Your task to perform on an android device: Go to location settings Image 0: 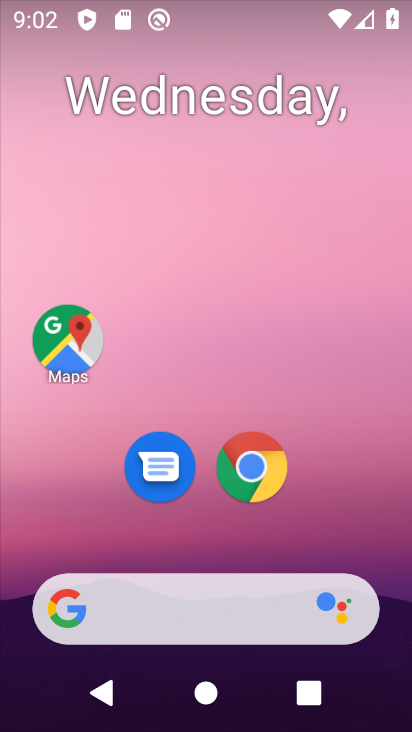
Step 0: drag from (301, 625) to (180, 86)
Your task to perform on an android device: Go to location settings Image 1: 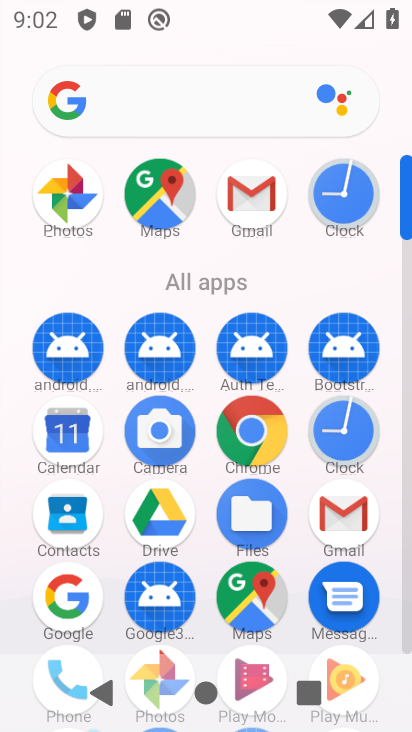
Step 1: drag from (220, 556) to (92, 24)
Your task to perform on an android device: Go to location settings Image 2: 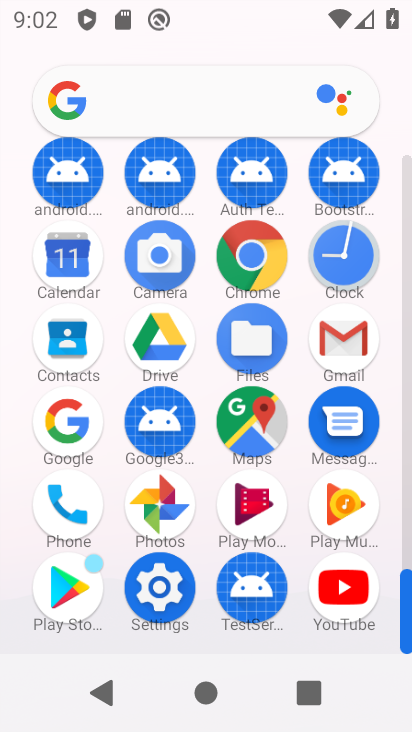
Step 2: drag from (257, 282) to (216, 2)
Your task to perform on an android device: Go to location settings Image 3: 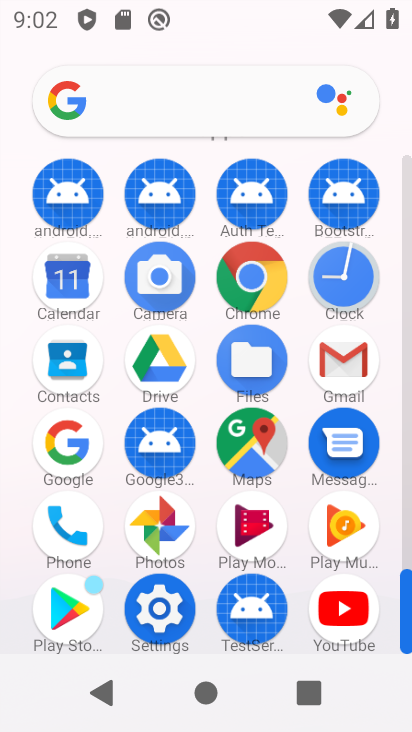
Step 3: click (152, 601)
Your task to perform on an android device: Go to location settings Image 4: 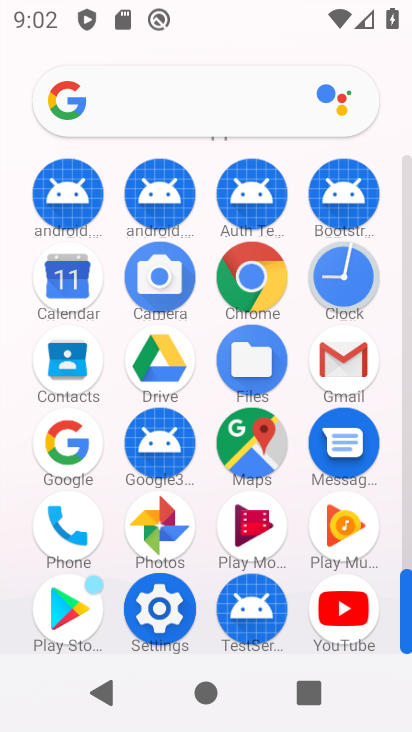
Step 4: click (152, 601)
Your task to perform on an android device: Go to location settings Image 5: 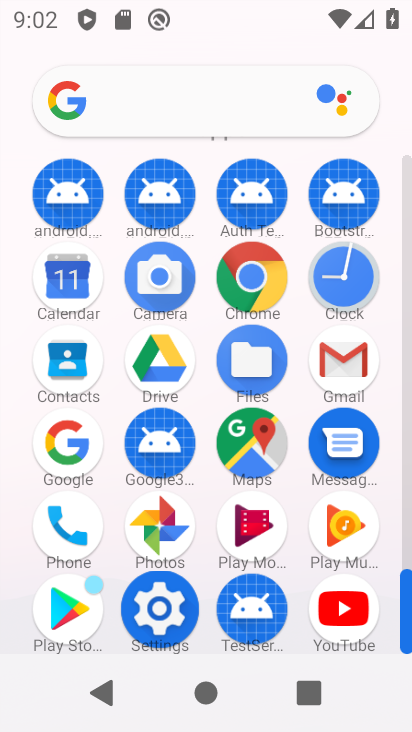
Step 5: click (151, 599)
Your task to perform on an android device: Go to location settings Image 6: 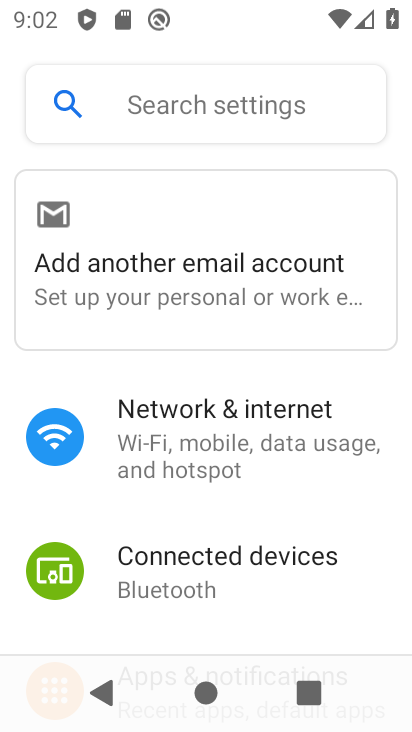
Step 6: drag from (218, 416) to (168, 181)
Your task to perform on an android device: Go to location settings Image 7: 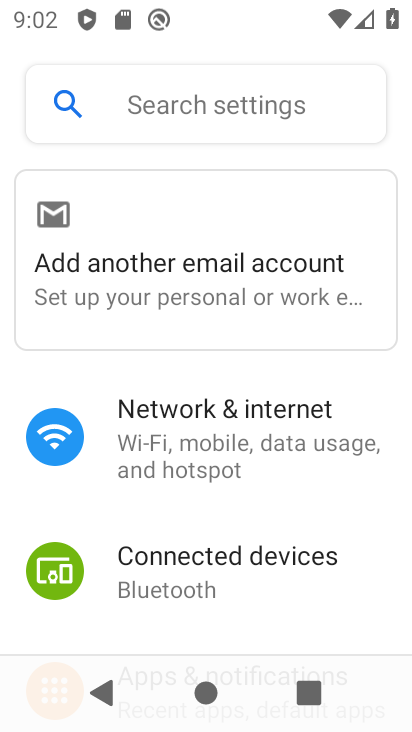
Step 7: drag from (250, 573) to (144, 3)
Your task to perform on an android device: Go to location settings Image 8: 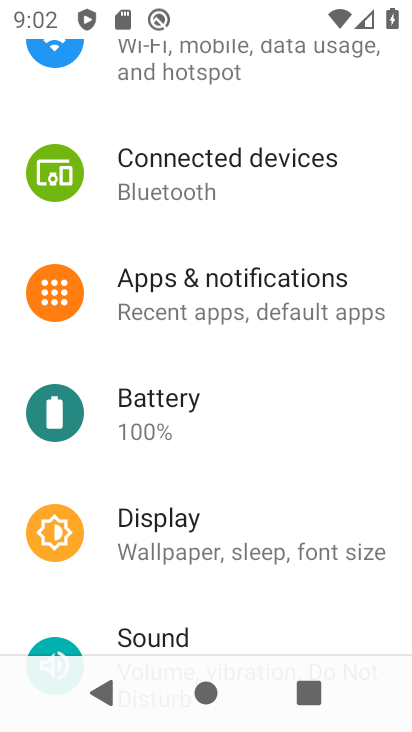
Step 8: drag from (230, 433) to (194, 193)
Your task to perform on an android device: Go to location settings Image 9: 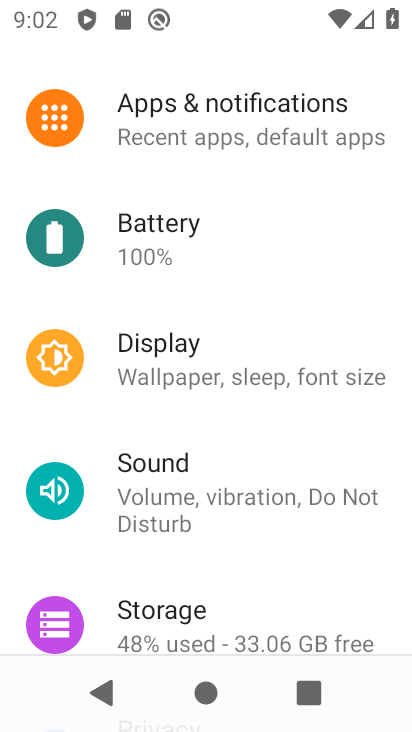
Step 9: drag from (246, 571) to (235, 151)
Your task to perform on an android device: Go to location settings Image 10: 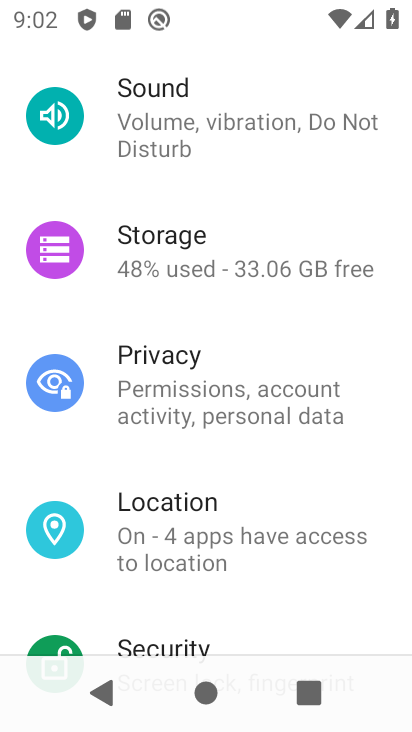
Step 10: drag from (262, 454) to (264, 37)
Your task to perform on an android device: Go to location settings Image 11: 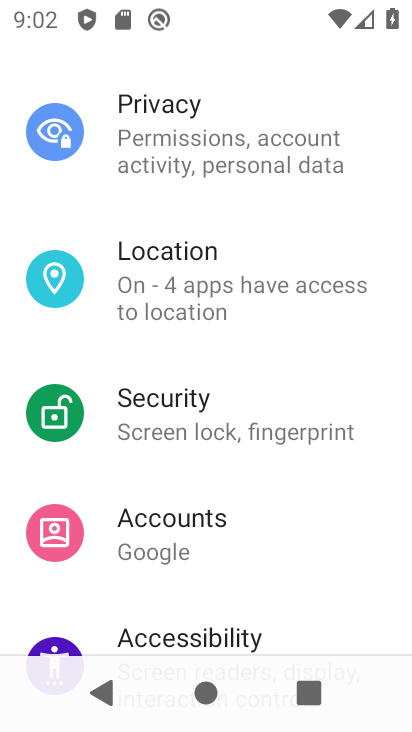
Step 11: click (179, 279)
Your task to perform on an android device: Go to location settings Image 12: 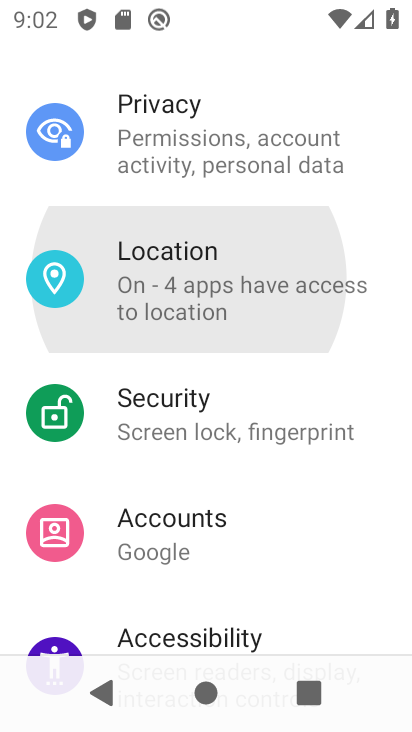
Step 12: click (150, 261)
Your task to perform on an android device: Go to location settings Image 13: 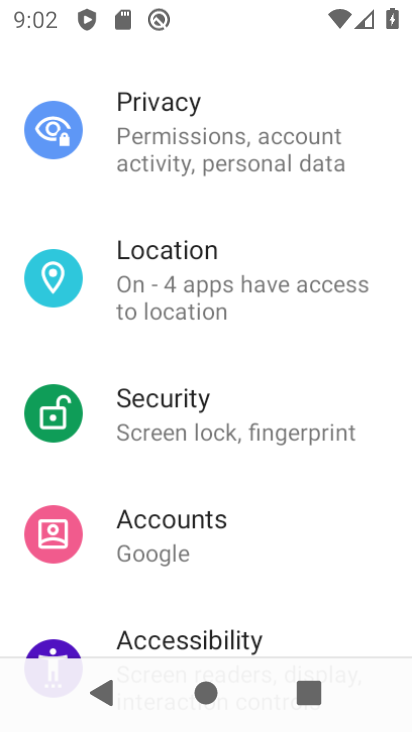
Step 13: click (171, 276)
Your task to perform on an android device: Go to location settings Image 14: 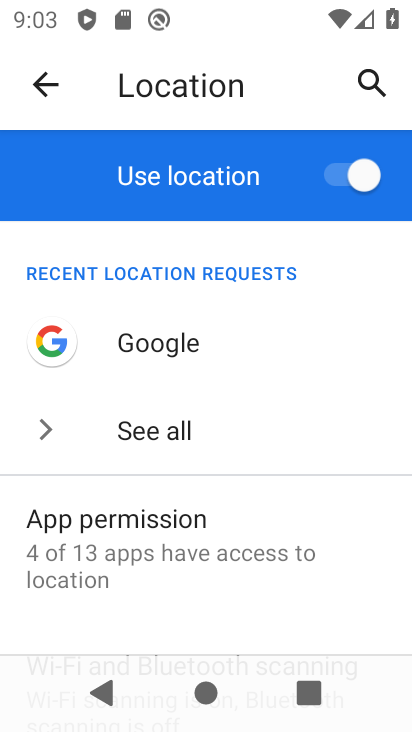
Step 14: task complete